Your task to perform on an android device: change the clock display to show seconds Image 0: 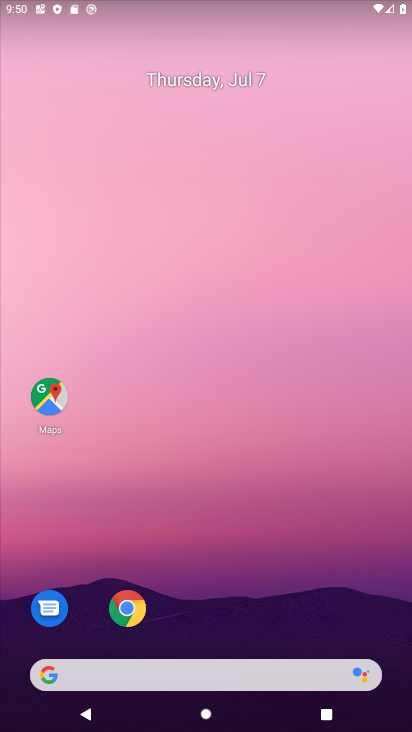
Step 0: drag from (220, 627) to (294, 119)
Your task to perform on an android device: change the clock display to show seconds Image 1: 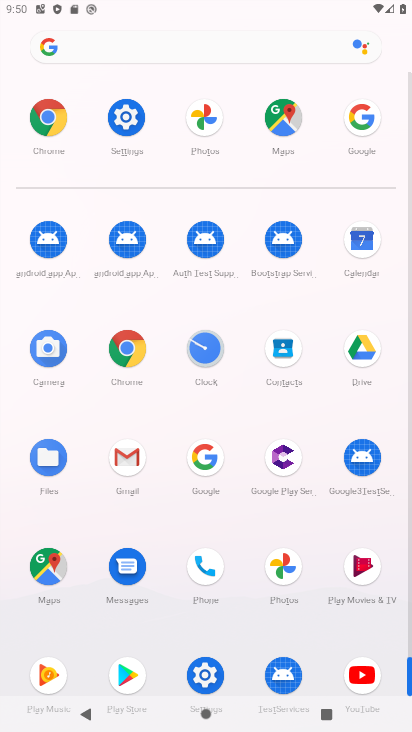
Step 1: click (210, 354)
Your task to perform on an android device: change the clock display to show seconds Image 2: 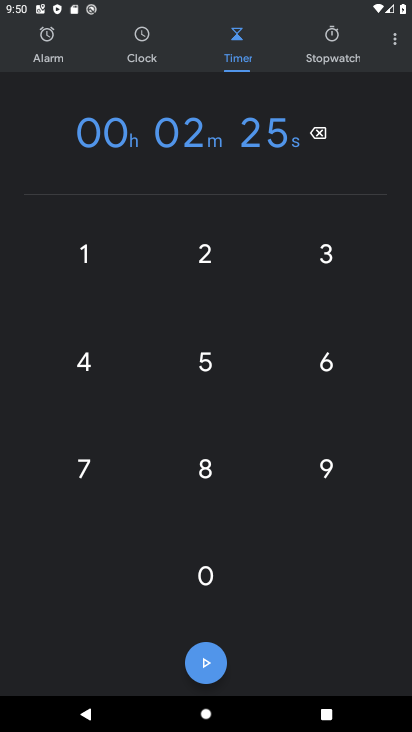
Step 2: click (394, 42)
Your task to perform on an android device: change the clock display to show seconds Image 3: 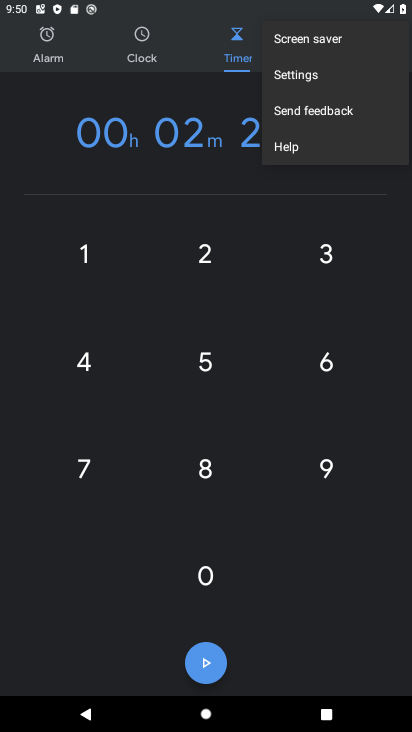
Step 3: click (319, 83)
Your task to perform on an android device: change the clock display to show seconds Image 4: 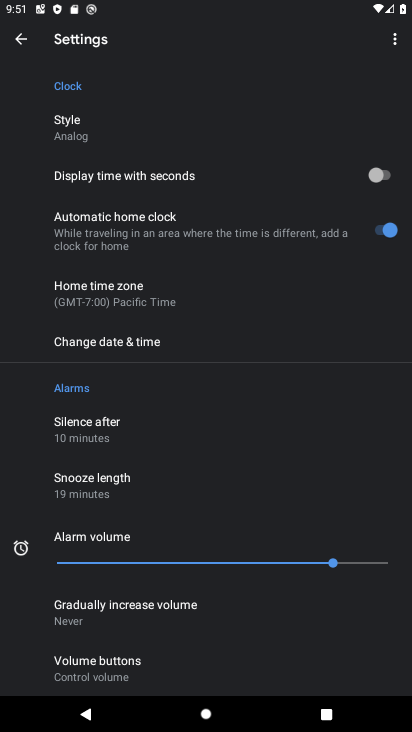
Step 4: click (386, 172)
Your task to perform on an android device: change the clock display to show seconds Image 5: 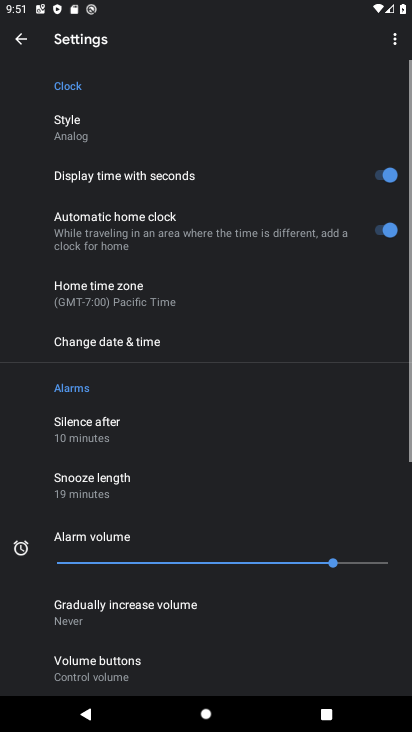
Step 5: task complete